Your task to perform on an android device: Open calendar and show me the fourth week of next month Image 0: 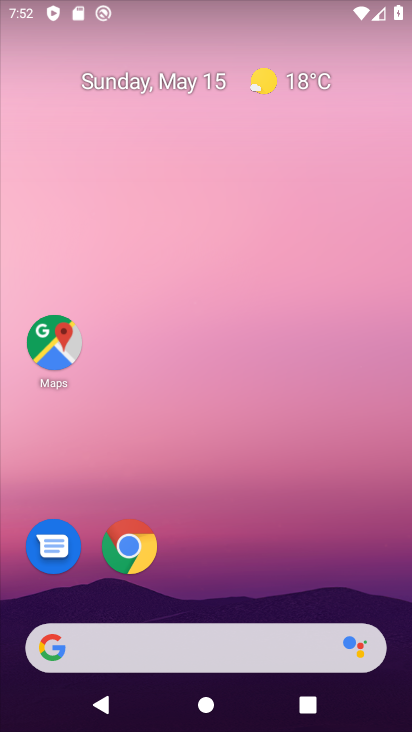
Step 0: drag from (219, 525) to (265, 223)
Your task to perform on an android device: Open calendar and show me the fourth week of next month Image 1: 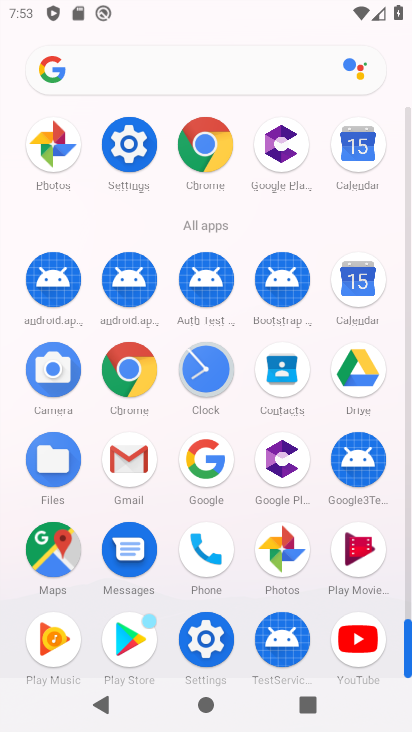
Step 1: drag from (210, 576) to (287, 260)
Your task to perform on an android device: Open calendar and show me the fourth week of next month Image 2: 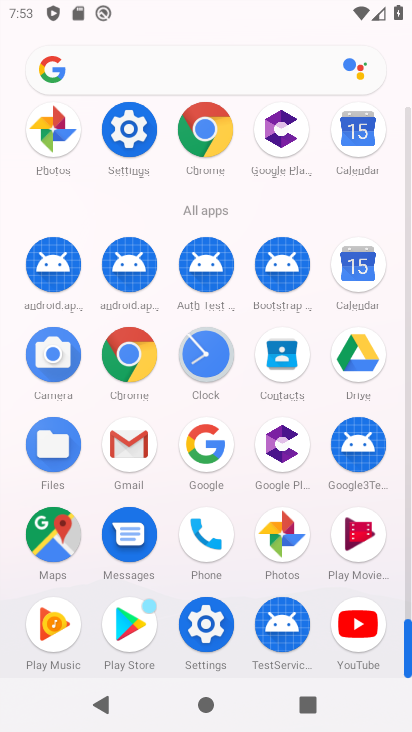
Step 2: click (351, 261)
Your task to perform on an android device: Open calendar and show me the fourth week of next month Image 3: 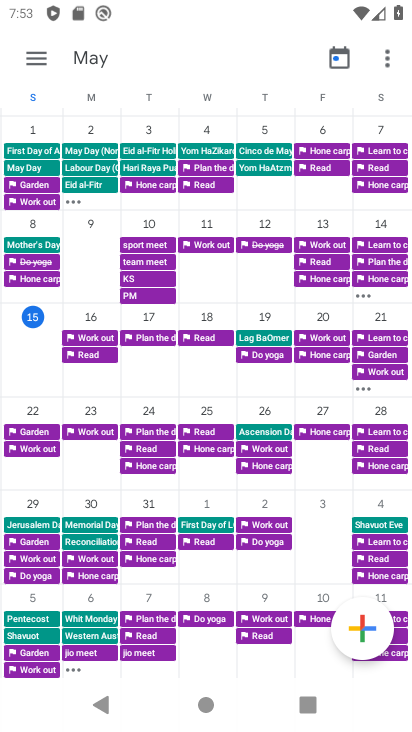
Step 3: task complete